Your task to perform on an android device: install app "Google Play services" Image 0: 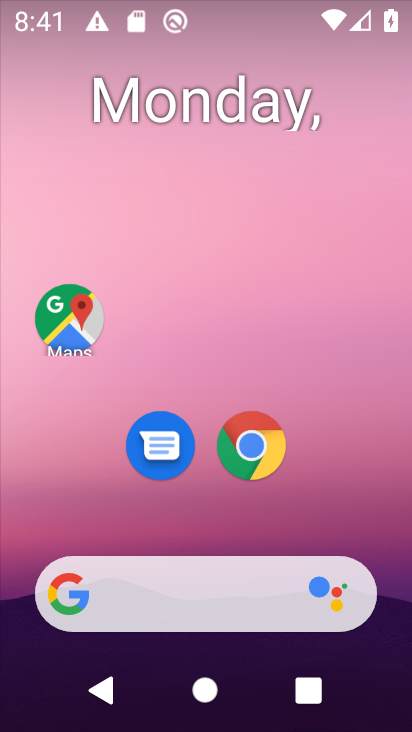
Step 0: drag from (330, 420) to (187, 90)
Your task to perform on an android device: install app "Google Play services" Image 1: 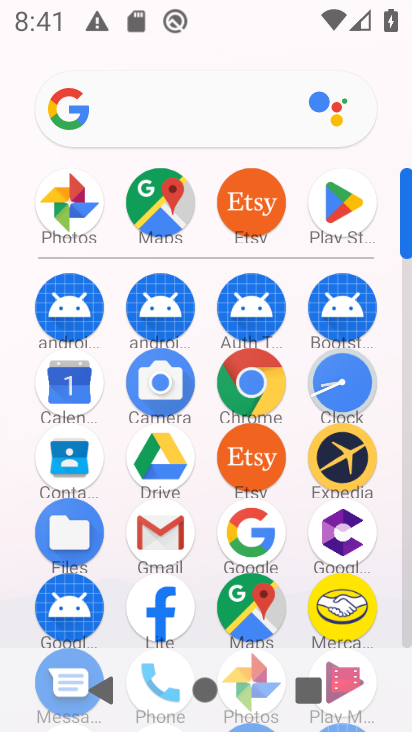
Step 1: click (340, 208)
Your task to perform on an android device: install app "Google Play services" Image 2: 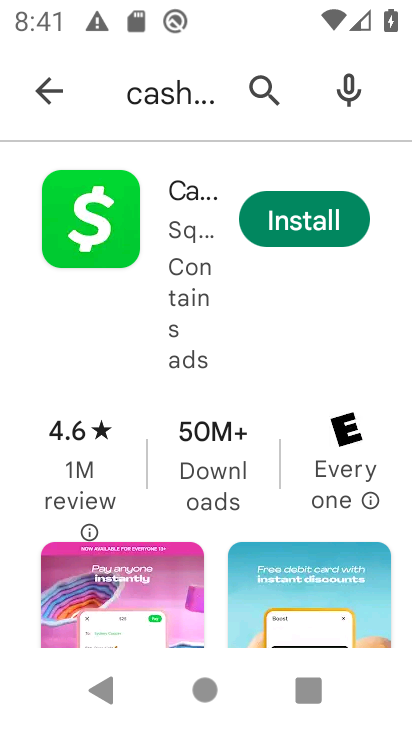
Step 2: press back button
Your task to perform on an android device: install app "Google Play services" Image 3: 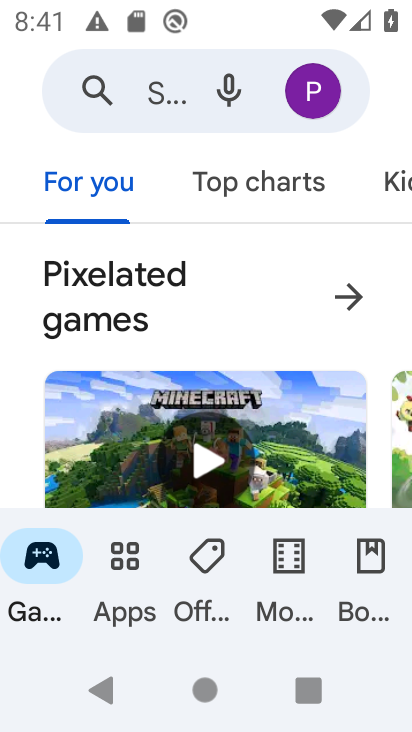
Step 3: click (162, 96)
Your task to perform on an android device: install app "Google Play services" Image 4: 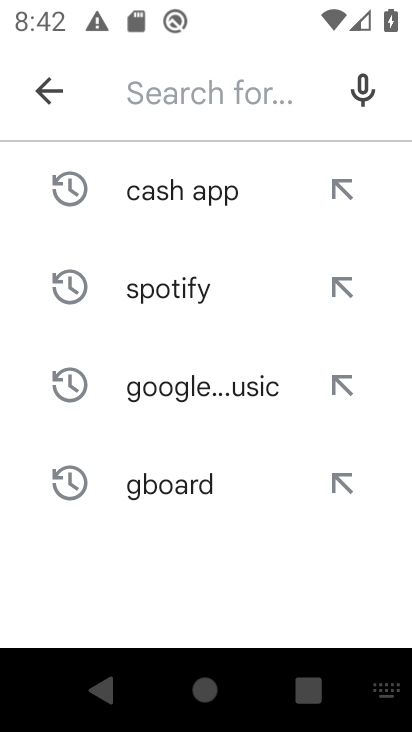
Step 4: type "Google Play services"
Your task to perform on an android device: install app "Google Play services" Image 5: 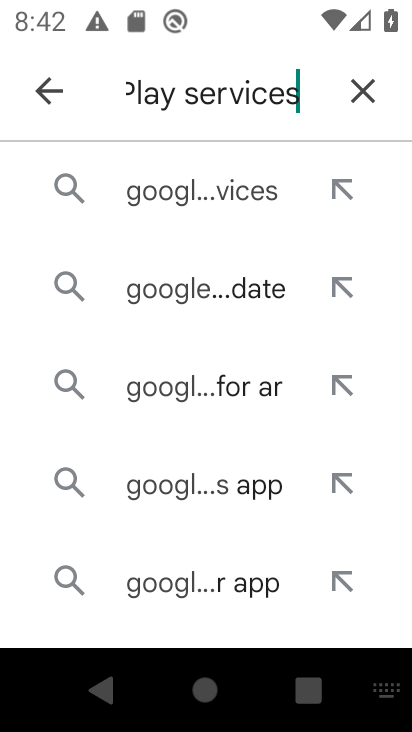
Step 5: click (184, 199)
Your task to perform on an android device: install app "Google Play services" Image 6: 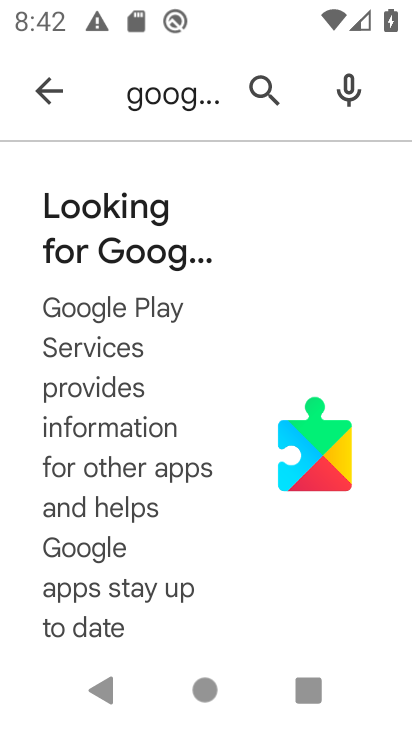
Step 6: task complete